Your task to perform on an android device: When is my next meeting? Image 0: 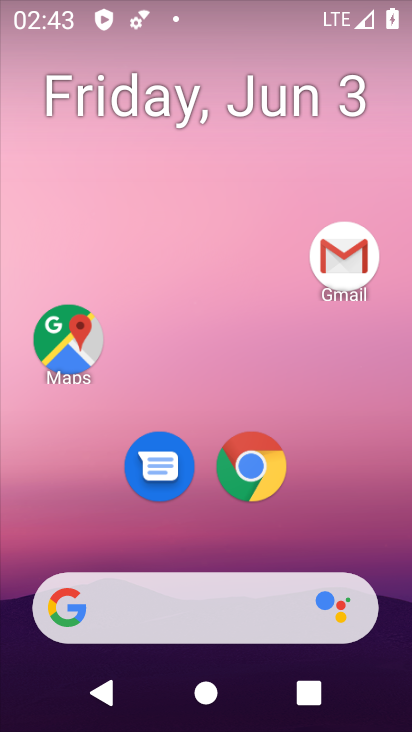
Step 0: drag from (215, 553) to (192, 299)
Your task to perform on an android device: When is my next meeting? Image 1: 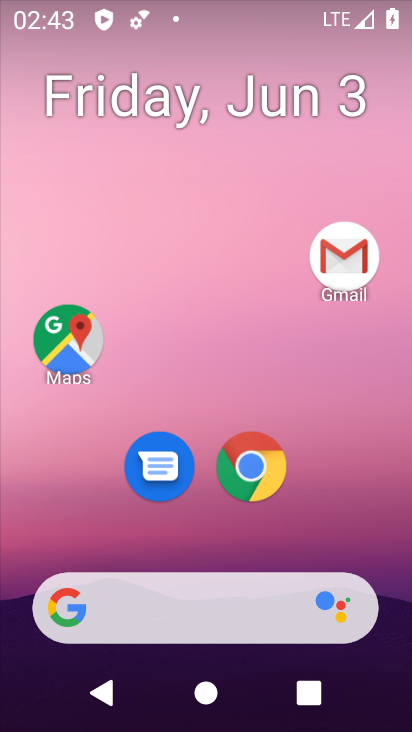
Step 1: drag from (190, 541) to (235, 245)
Your task to perform on an android device: When is my next meeting? Image 2: 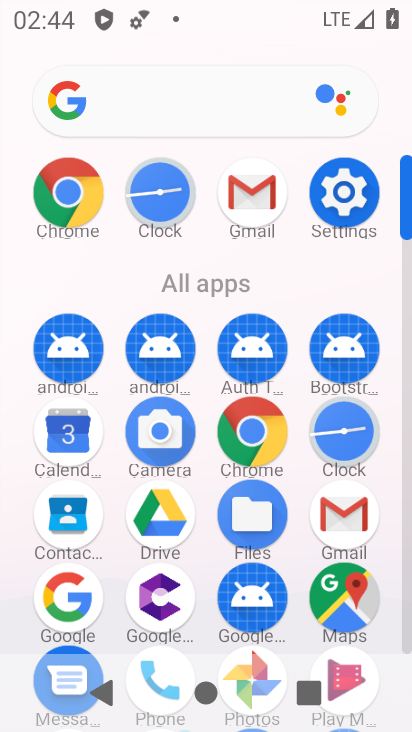
Step 2: drag from (198, 626) to (206, 329)
Your task to perform on an android device: When is my next meeting? Image 3: 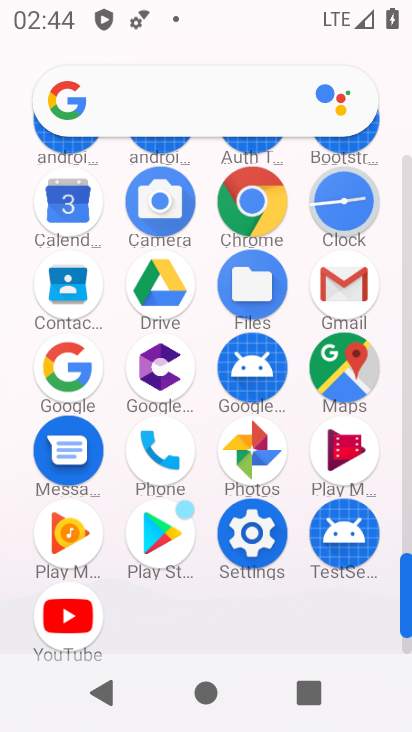
Step 3: click (64, 234)
Your task to perform on an android device: When is my next meeting? Image 4: 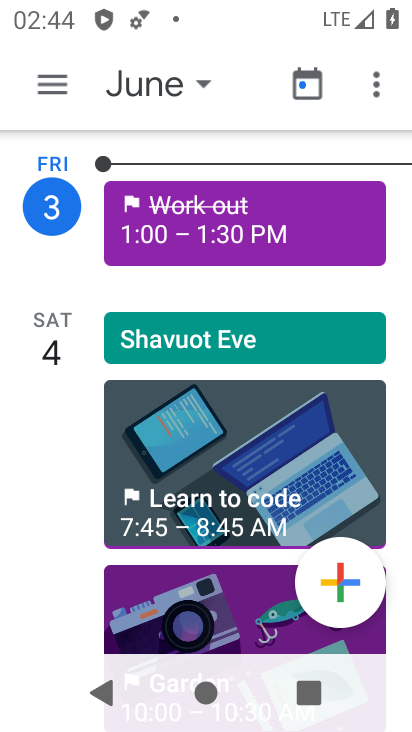
Step 4: drag from (184, 566) to (236, 177)
Your task to perform on an android device: When is my next meeting? Image 5: 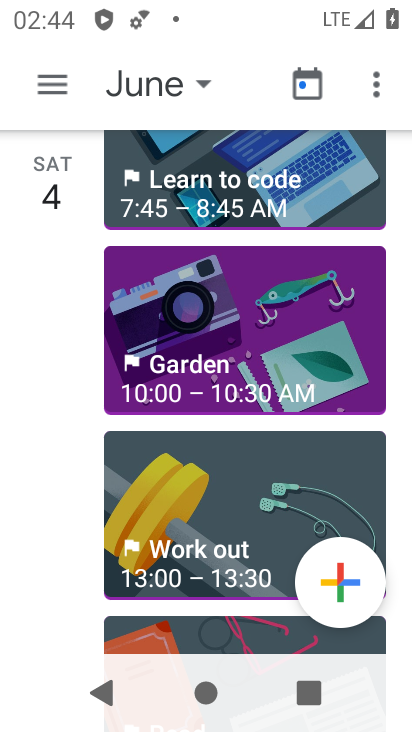
Step 5: drag from (187, 591) to (188, 231)
Your task to perform on an android device: When is my next meeting? Image 6: 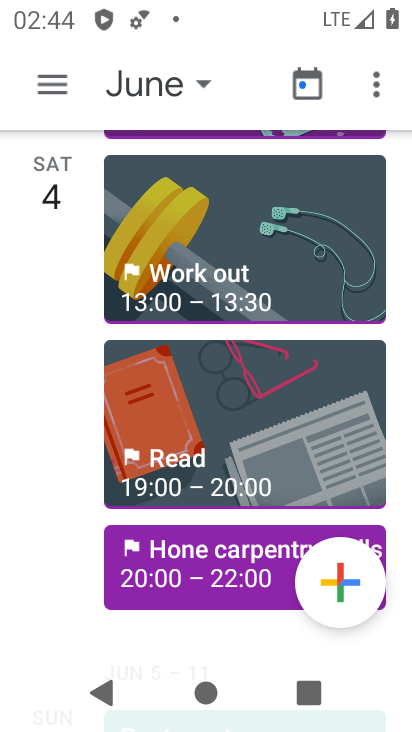
Step 6: drag from (186, 552) to (213, 222)
Your task to perform on an android device: When is my next meeting? Image 7: 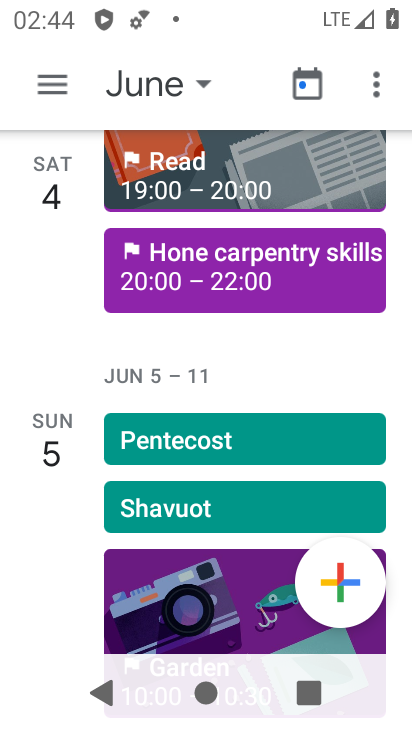
Step 7: click (127, 360)
Your task to perform on an android device: When is my next meeting? Image 8: 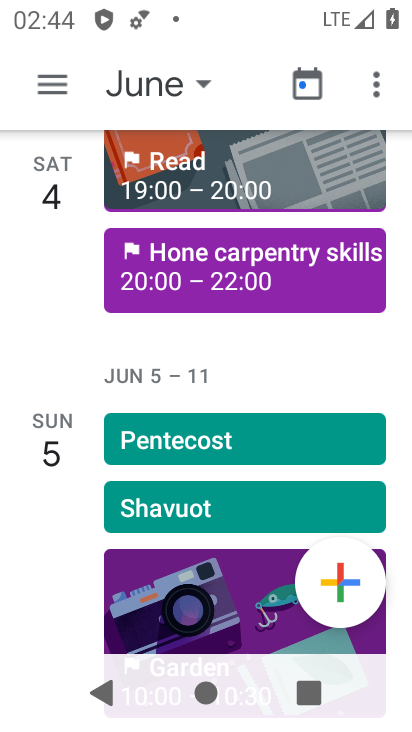
Step 8: click (227, 292)
Your task to perform on an android device: When is my next meeting? Image 9: 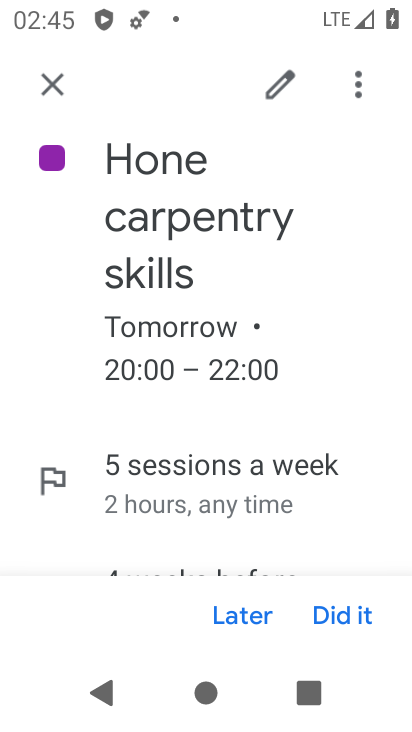
Step 9: click (36, 84)
Your task to perform on an android device: When is my next meeting? Image 10: 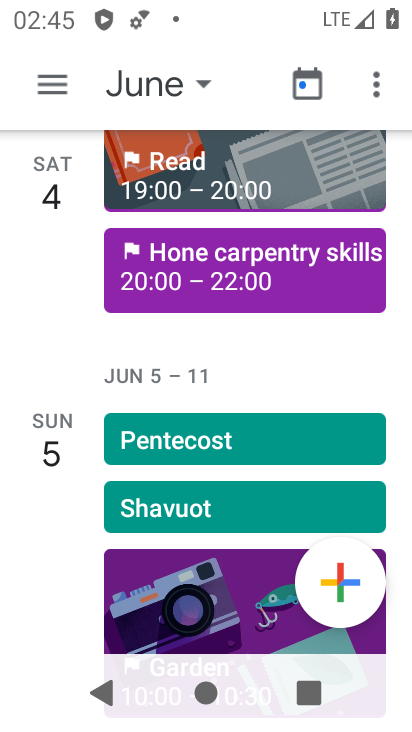
Step 10: task complete